Your task to perform on an android device: Open location settings Image 0: 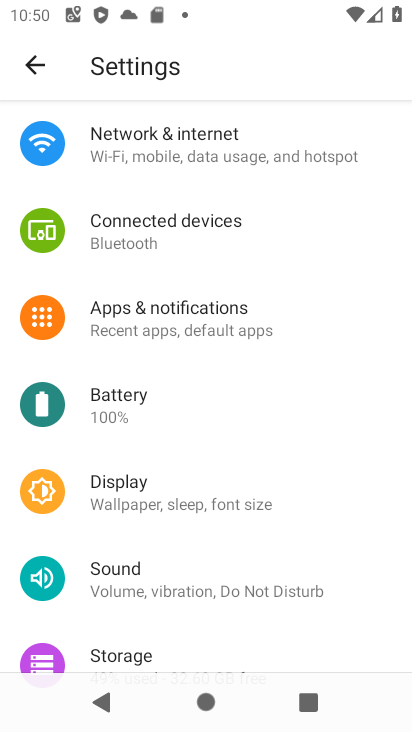
Step 0: press home button
Your task to perform on an android device: Open location settings Image 1: 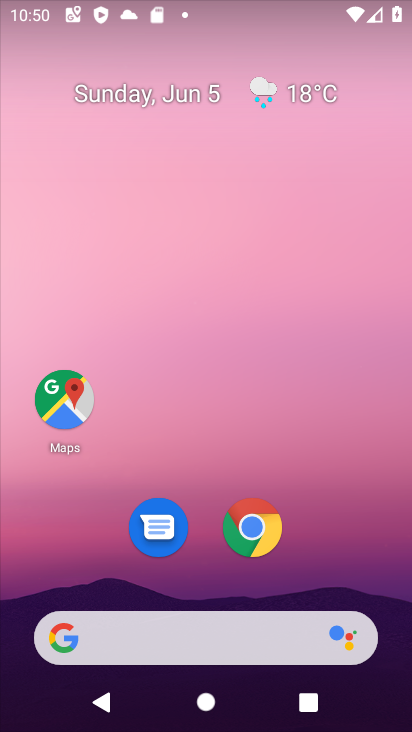
Step 1: drag from (364, 573) to (261, 72)
Your task to perform on an android device: Open location settings Image 2: 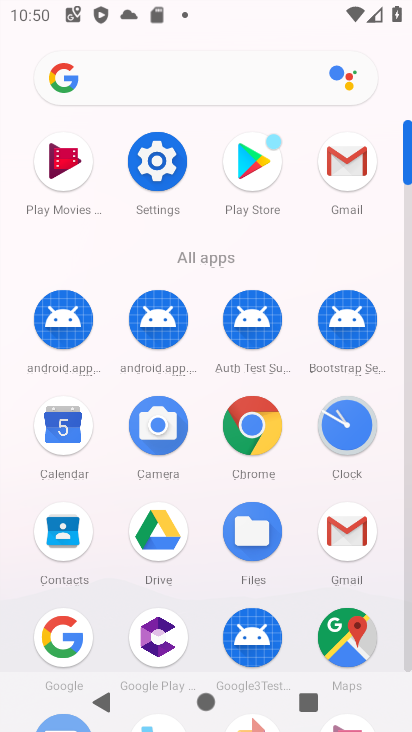
Step 2: click (167, 161)
Your task to perform on an android device: Open location settings Image 3: 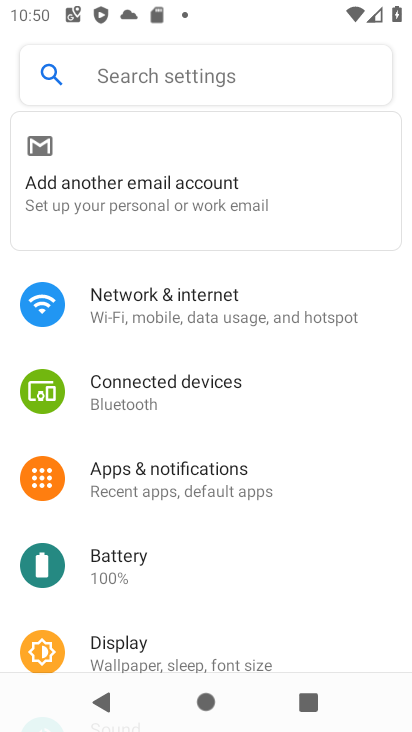
Step 3: drag from (251, 581) to (257, 118)
Your task to perform on an android device: Open location settings Image 4: 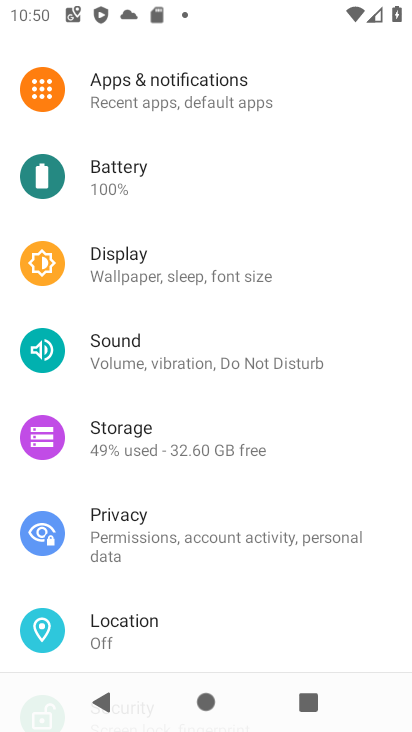
Step 4: click (169, 619)
Your task to perform on an android device: Open location settings Image 5: 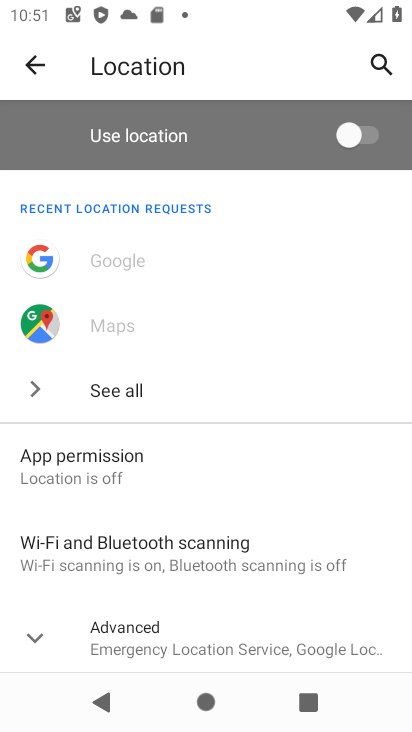
Step 5: task complete